Your task to perform on an android device: set an alarm Image 0: 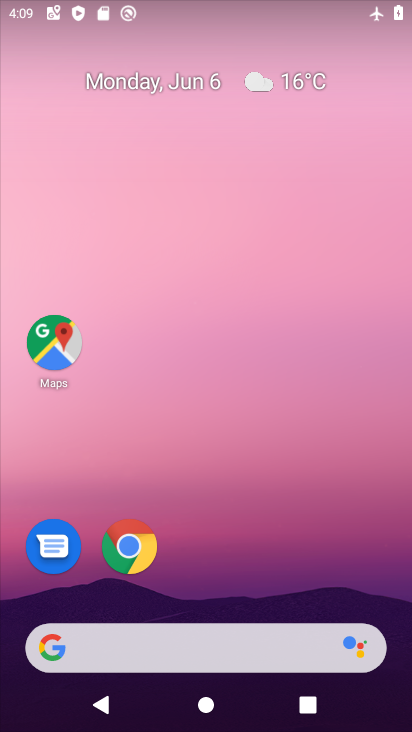
Step 0: drag from (332, 370) to (391, 1)
Your task to perform on an android device: set an alarm Image 1: 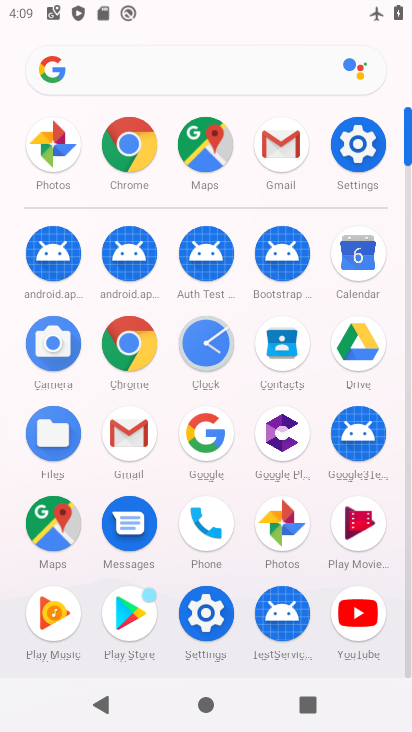
Step 1: click (196, 342)
Your task to perform on an android device: set an alarm Image 2: 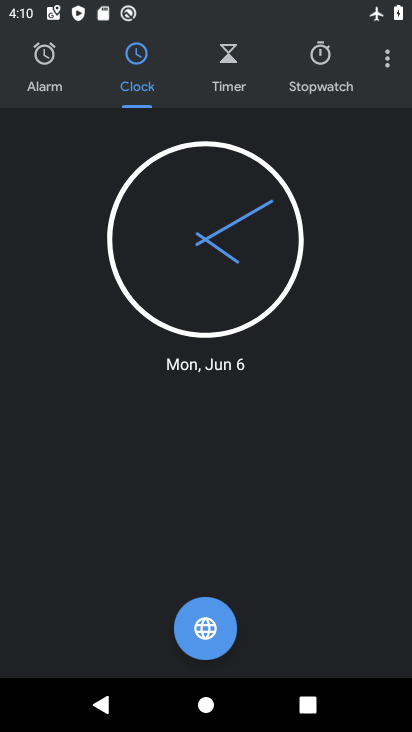
Step 2: click (242, 65)
Your task to perform on an android device: set an alarm Image 3: 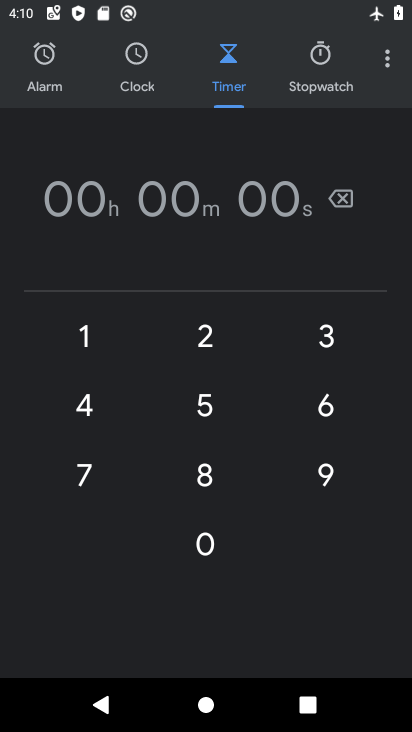
Step 3: click (204, 342)
Your task to perform on an android device: set an alarm Image 4: 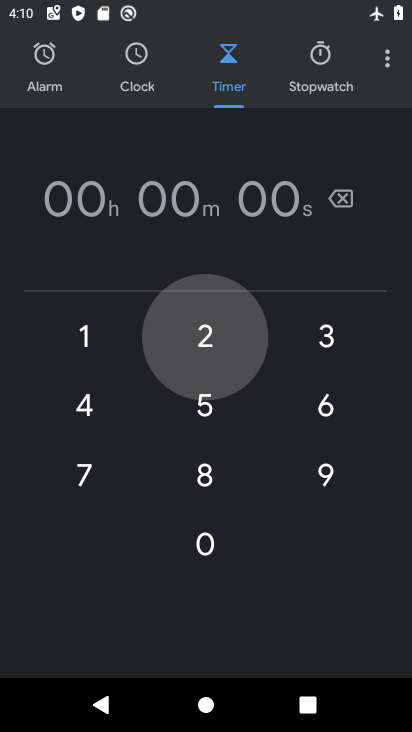
Step 4: click (191, 419)
Your task to perform on an android device: set an alarm Image 5: 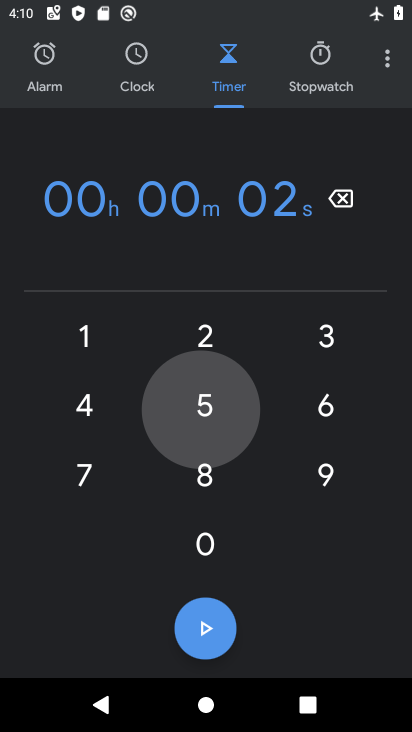
Step 5: click (218, 372)
Your task to perform on an android device: set an alarm Image 6: 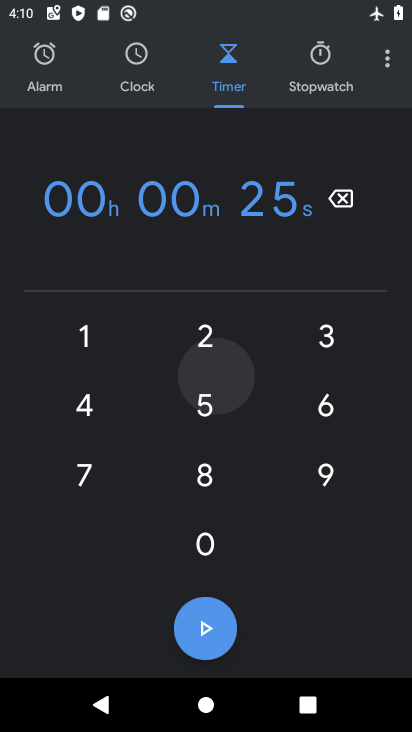
Step 6: click (218, 406)
Your task to perform on an android device: set an alarm Image 7: 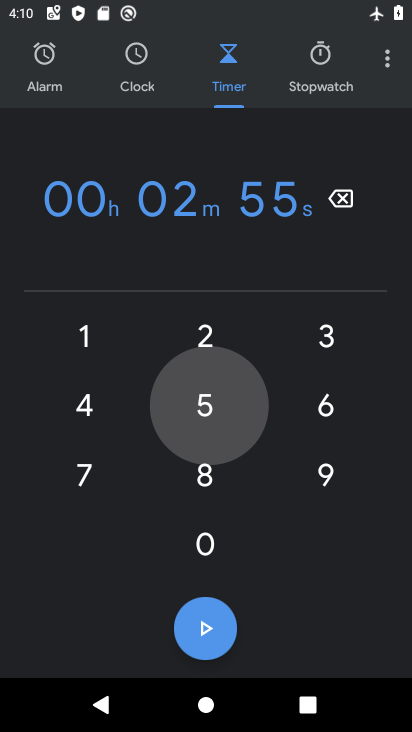
Step 7: click (225, 376)
Your task to perform on an android device: set an alarm Image 8: 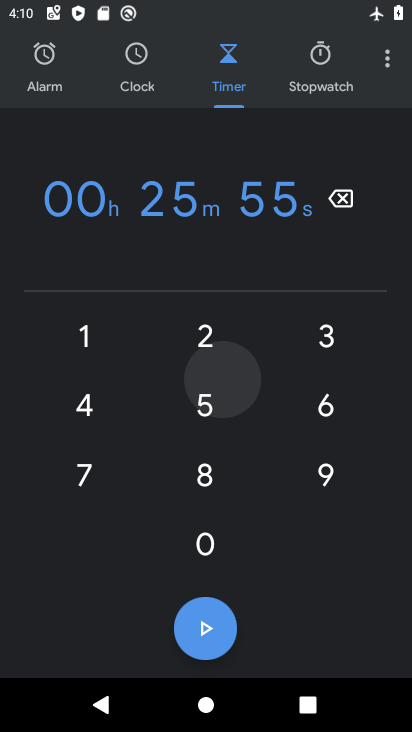
Step 8: click (230, 401)
Your task to perform on an android device: set an alarm Image 9: 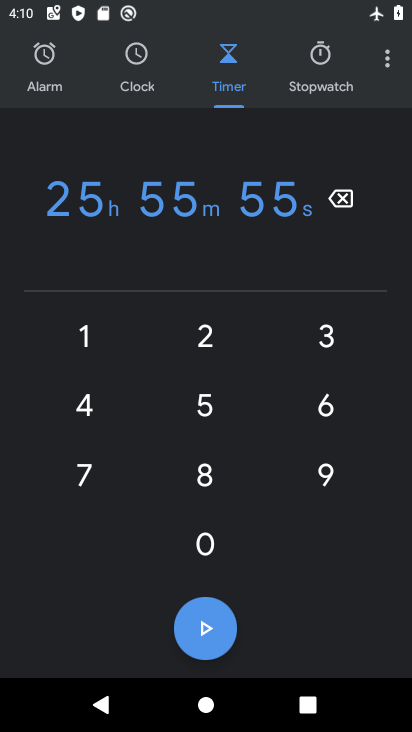
Step 9: click (185, 652)
Your task to perform on an android device: set an alarm Image 10: 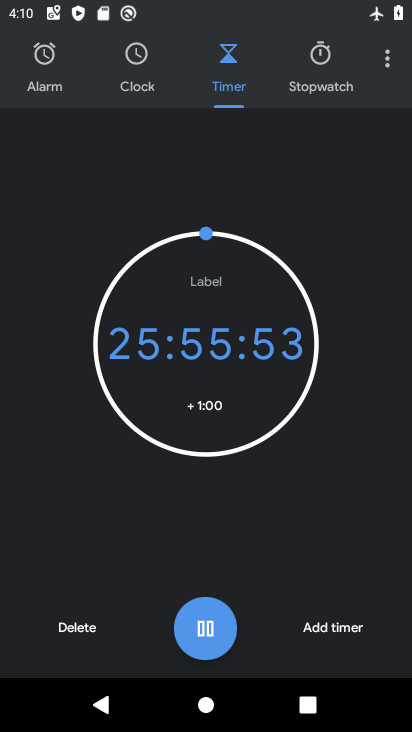
Step 10: task complete